Your task to perform on an android device: toggle airplane mode Image 0: 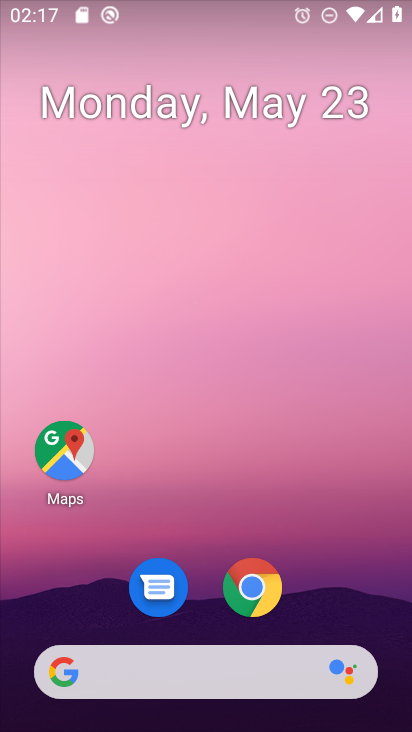
Step 0: drag from (357, 593) to (246, 4)
Your task to perform on an android device: toggle airplane mode Image 1: 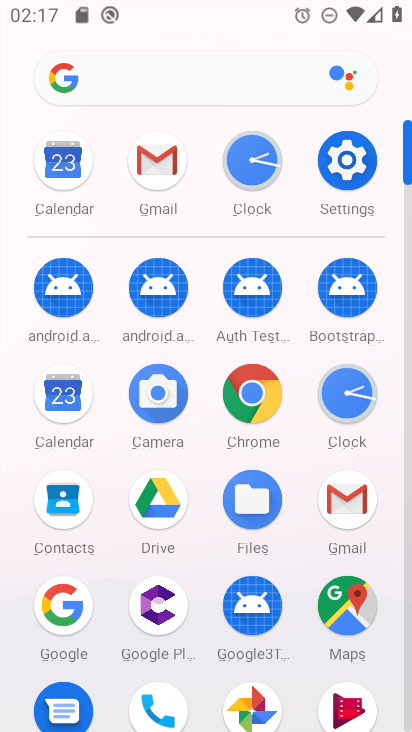
Step 1: click (348, 175)
Your task to perform on an android device: toggle airplane mode Image 2: 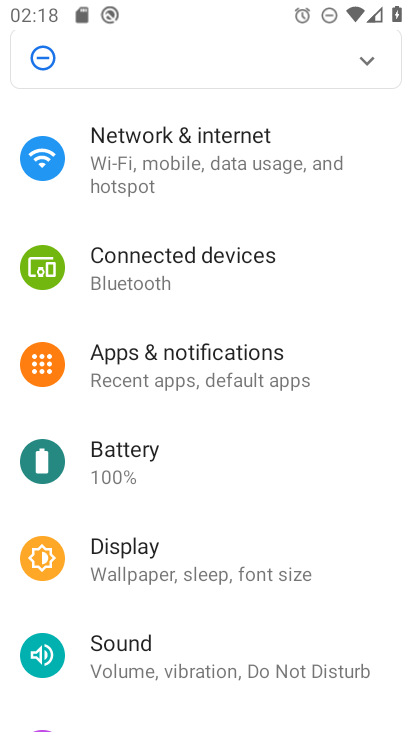
Step 2: click (236, 199)
Your task to perform on an android device: toggle airplane mode Image 3: 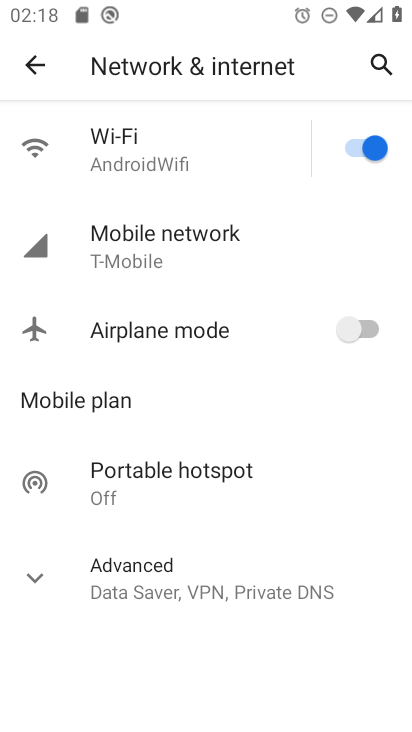
Step 3: click (352, 339)
Your task to perform on an android device: toggle airplane mode Image 4: 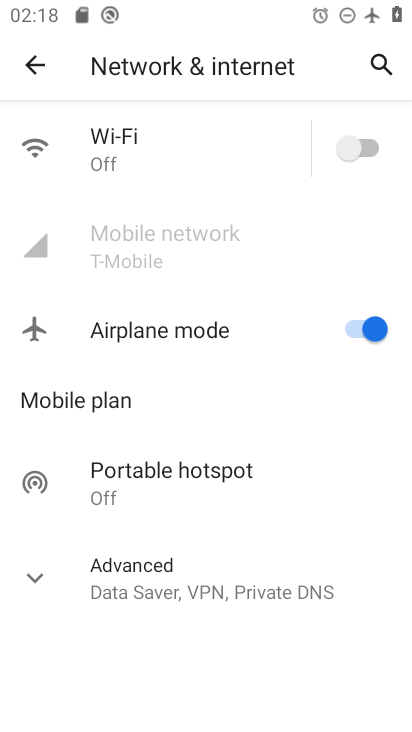
Step 4: task complete